Your task to perform on an android device: Show me the alarms in the clock app Image 0: 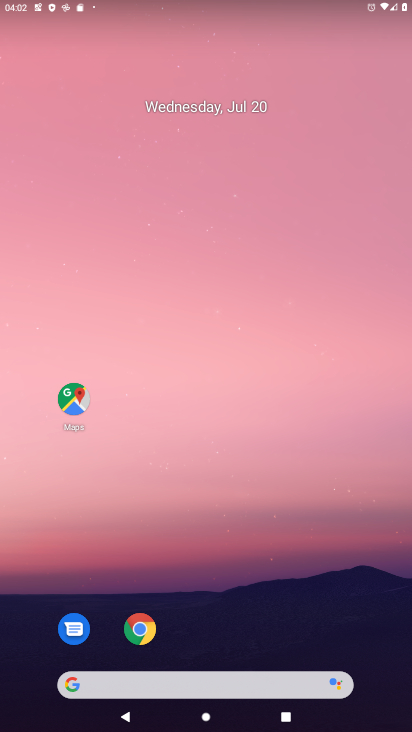
Step 0: drag from (378, 658) to (327, 36)
Your task to perform on an android device: Show me the alarms in the clock app Image 1: 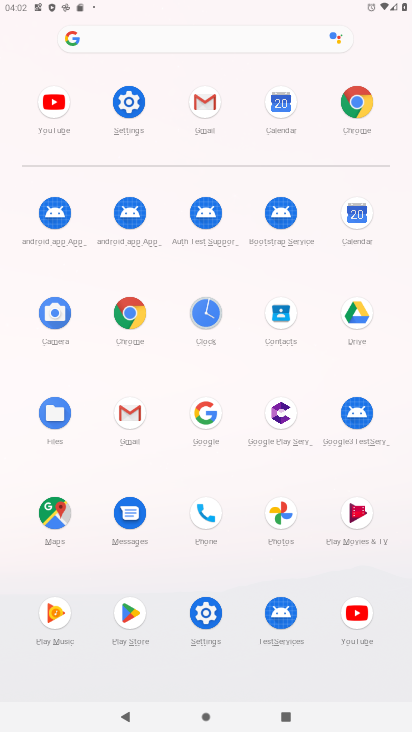
Step 1: click (203, 315)
Your task to perform on an android device: Show me the alarms in the clock app Image 2: 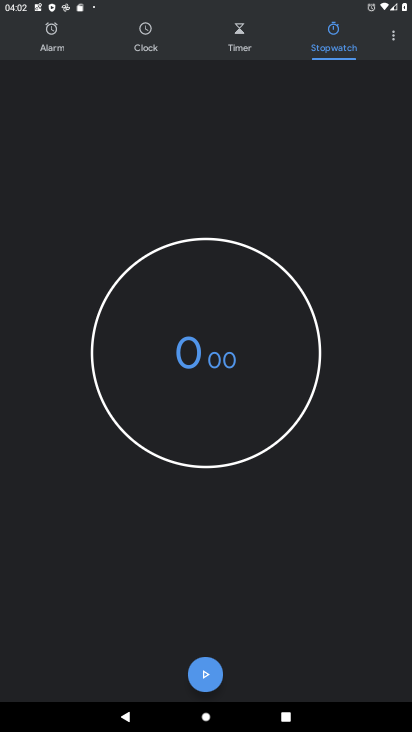
Step 2: click (46, 40)
Your task to perform on an android device: Show me the alarms in the clock app Image 3: 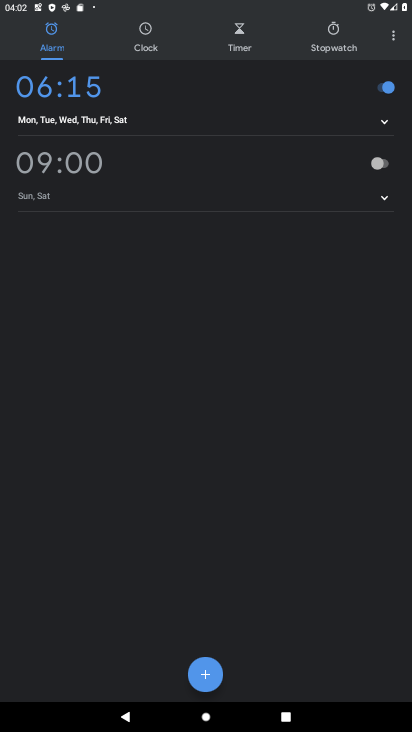
Step 3: task complete